Your task to perform on an android device: check android version Image 0: 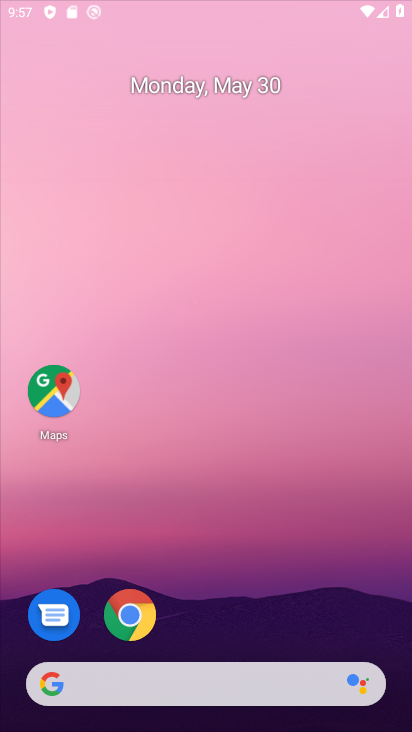
Step 0: drag from (195, 724) to (205, 0)
Your task to perform on an android device: check android version Image 1: 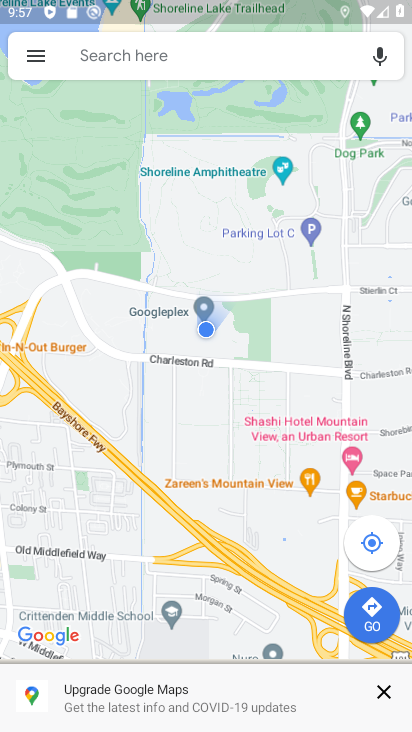
Step 1: press home button
Your task to perform on an android device: check android version Image 2: 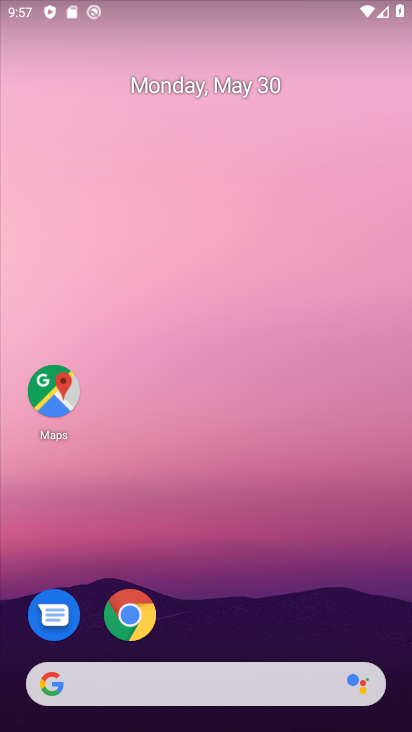
Step 2: drag from (206, 721) to (209, 45)
Your task to perform on an android device: check android version Image 3: 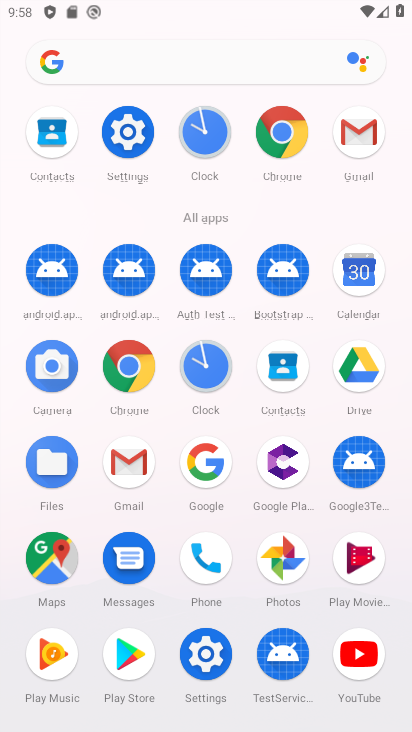
Step 3: click (128, 133)
Your task to perform on an android device: check android version Image 4: 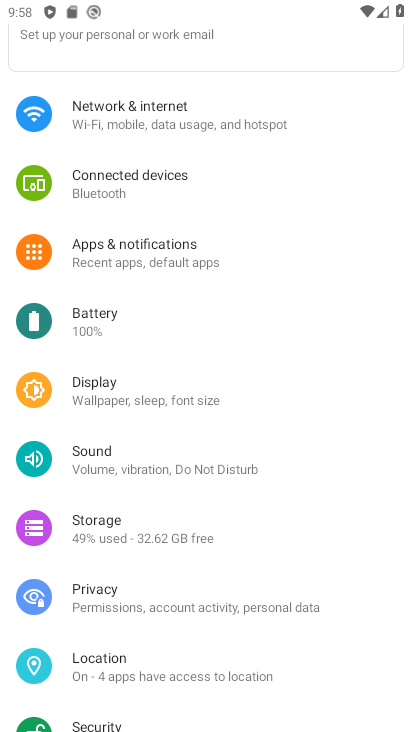
Step 4: drag from (182, 703) to (189, 170)
Your task to perform on an android device: check android version Image 5: 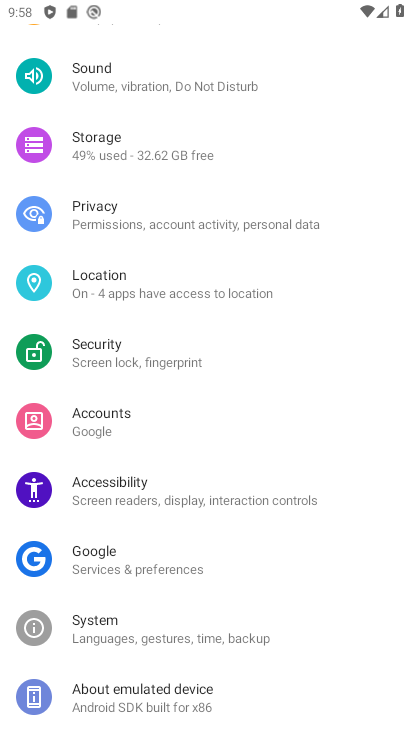
Step 5: drag from (169, 529) to (170, 199)
Your task to perform on an android device: check android version Image 6: 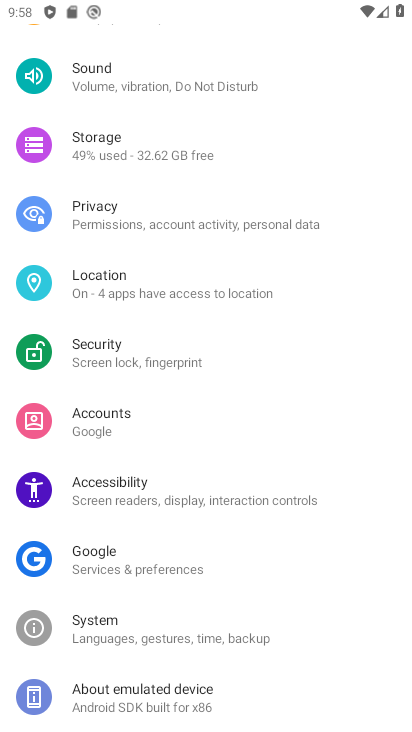
Step 6: click (133, 687)
Your task to perform on an android device: check android version Image 7: 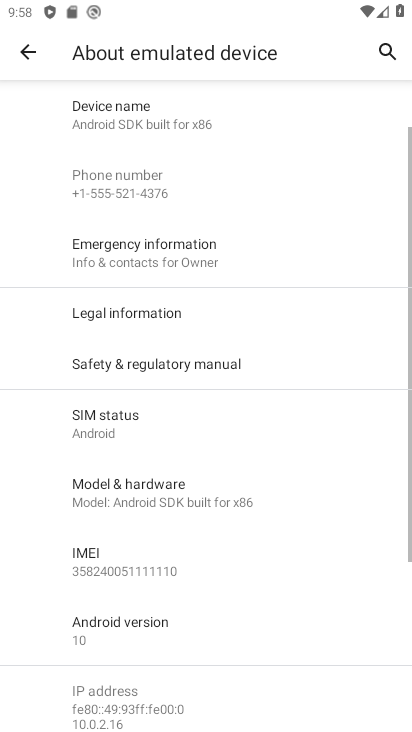
Step 7: click (123, 632)
Your task to perform on an android device: check android version Image 8: 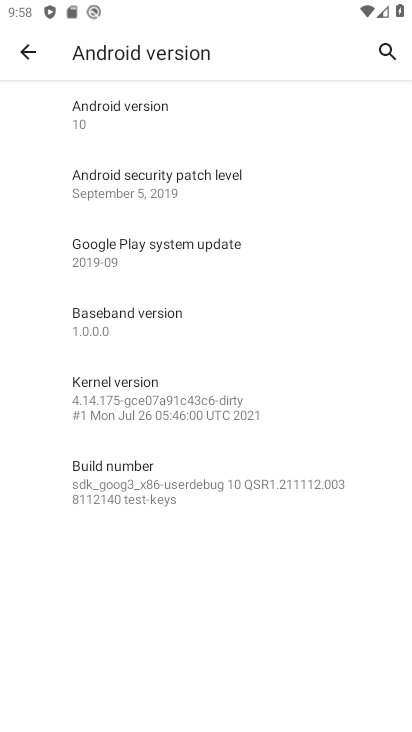
Step 8: task complete